Your task to perform on an android device: Is it going to rain this weekend? Image 0: 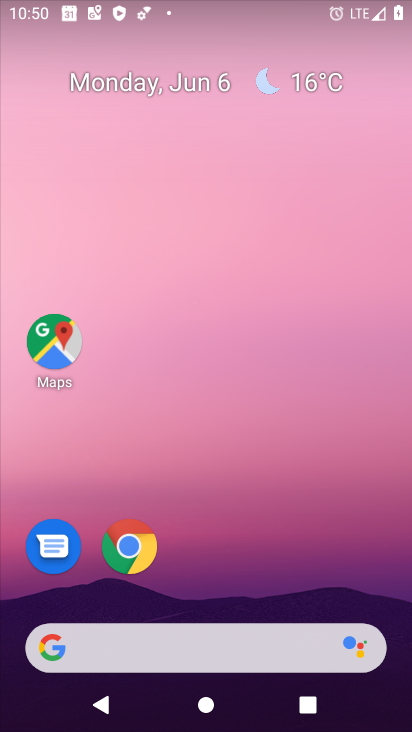
Step 0: click (292, 79)
Your task to perform on an android device: Is it going to rain this weekend? Image 1: 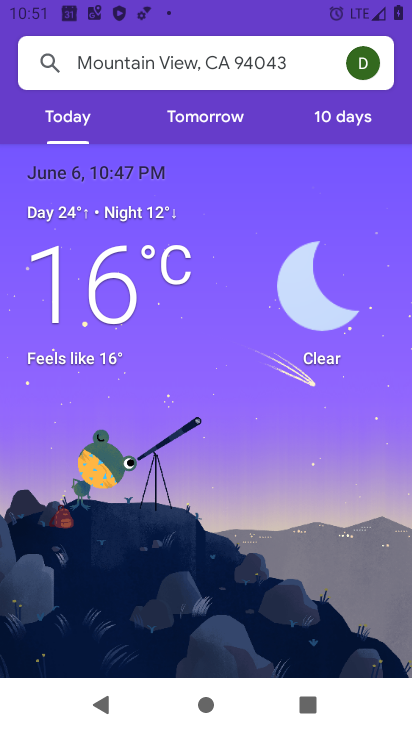
Step 1: click (334, 129)
Your task to perform on an android device: Is it going to rain this weekend? Image 2: 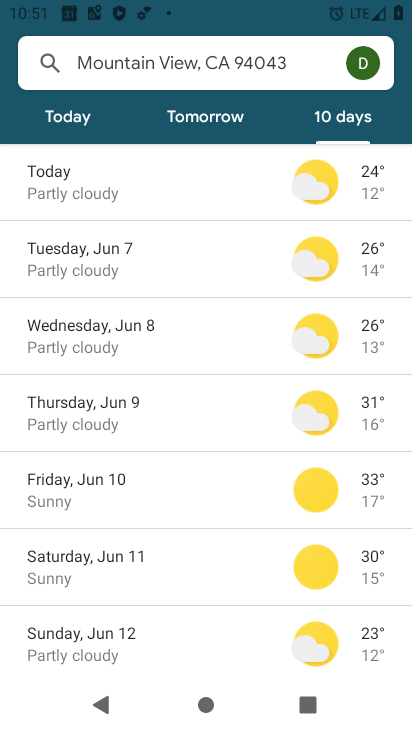
Step 2: task complete